Your task to perform on an android device: toggle airplane mode Image 0: 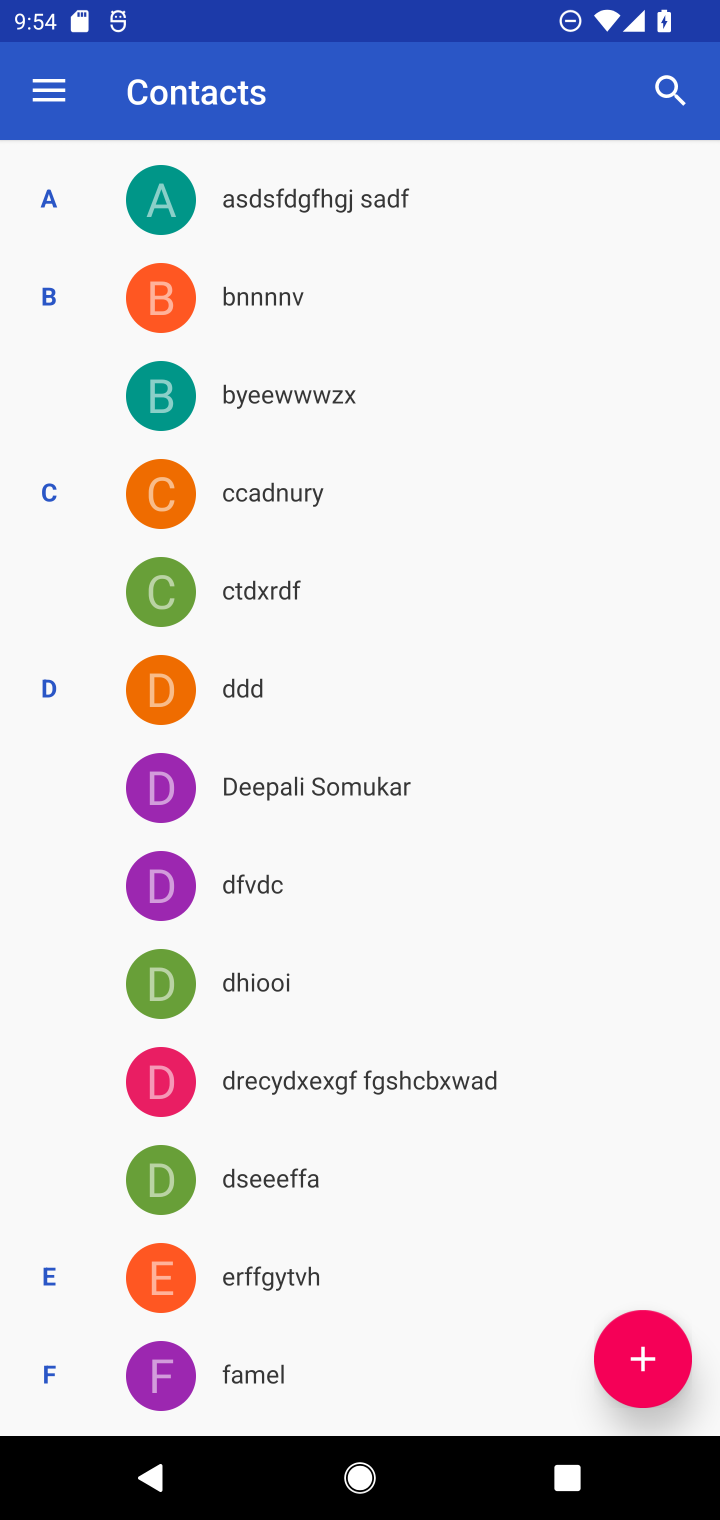
Step 0: press home button
Your task to perform on an android device: toggle airplane mode Image 1: 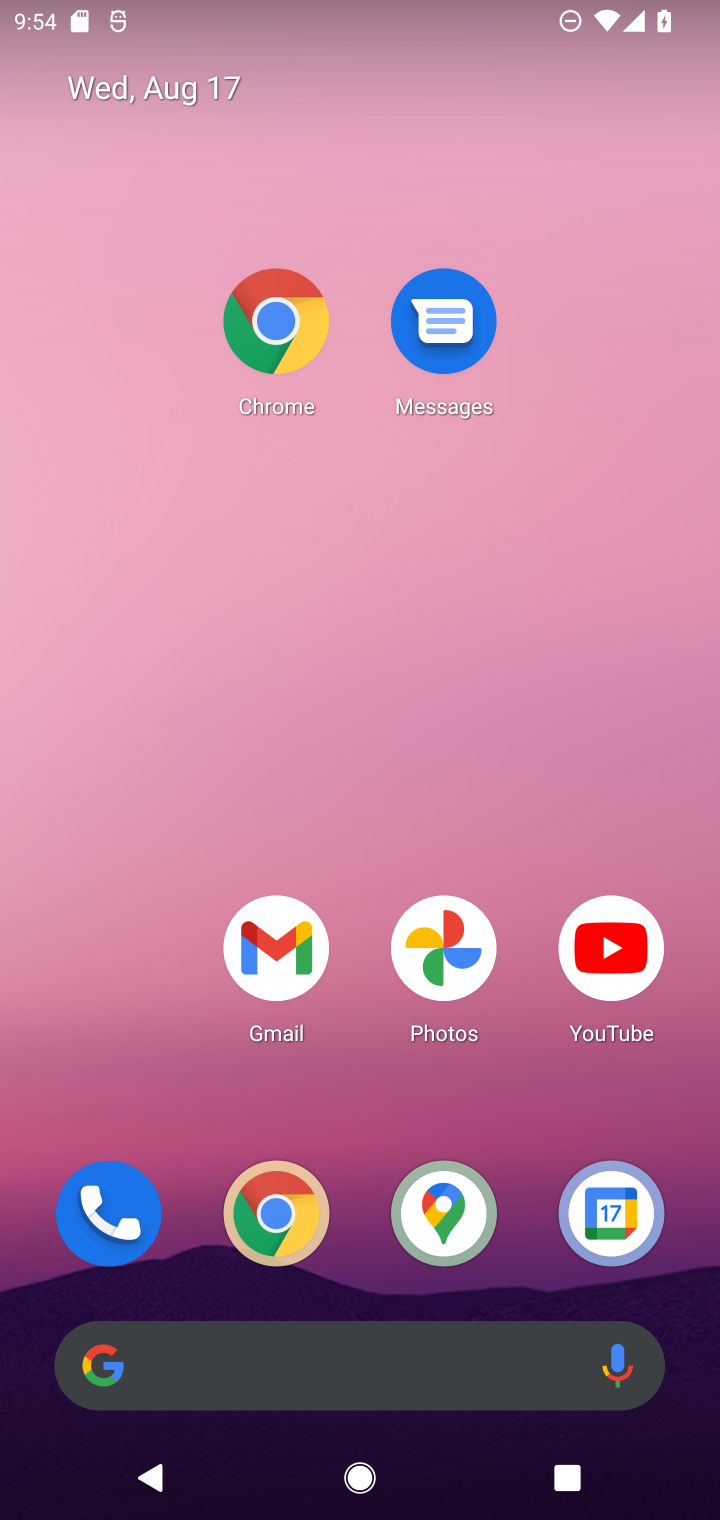
Step 1: drag from (354, 1308) to (405, 663)
Your task to perform on an android device: toggle airplane mode Image 2: 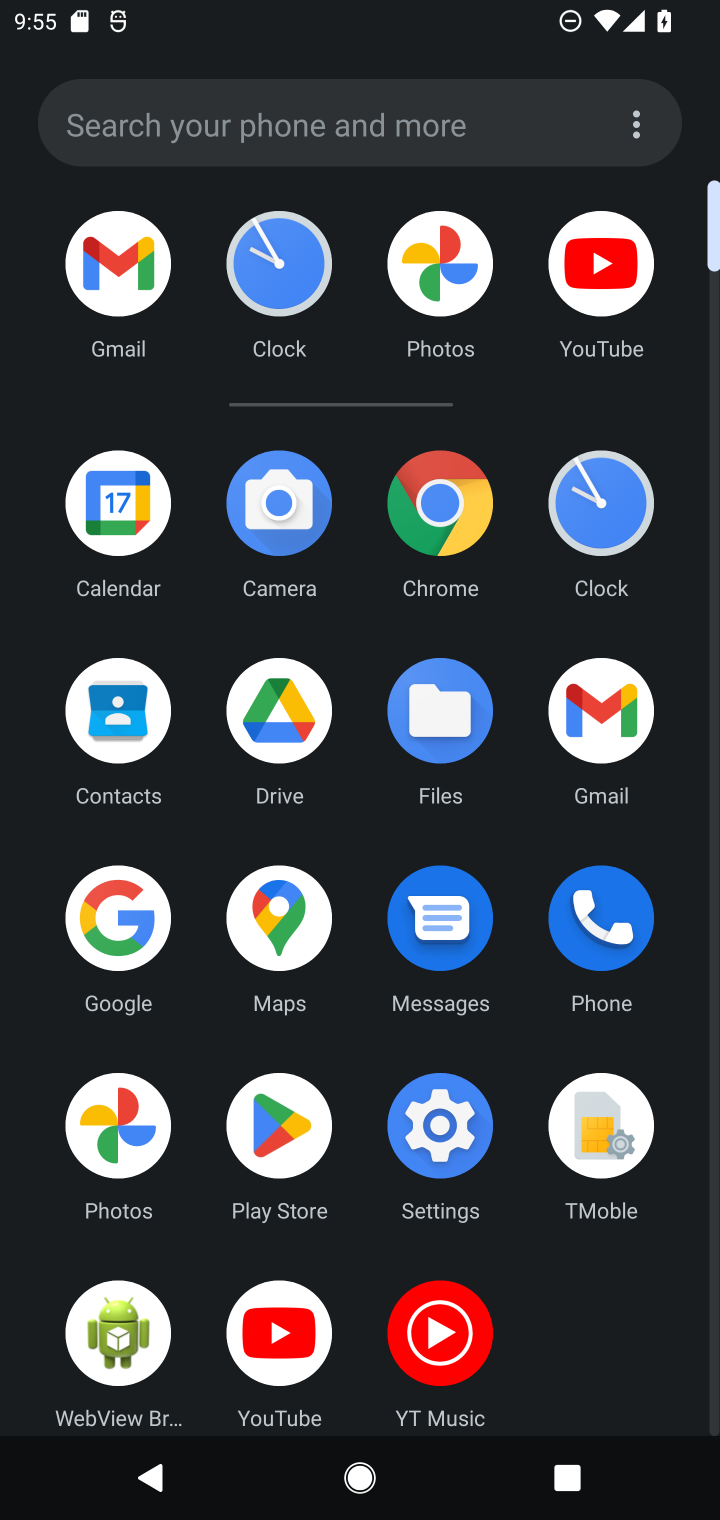
Step 2: click (453, 1129)
Your task to perform on an android device: toggle airplane mode Image 3: 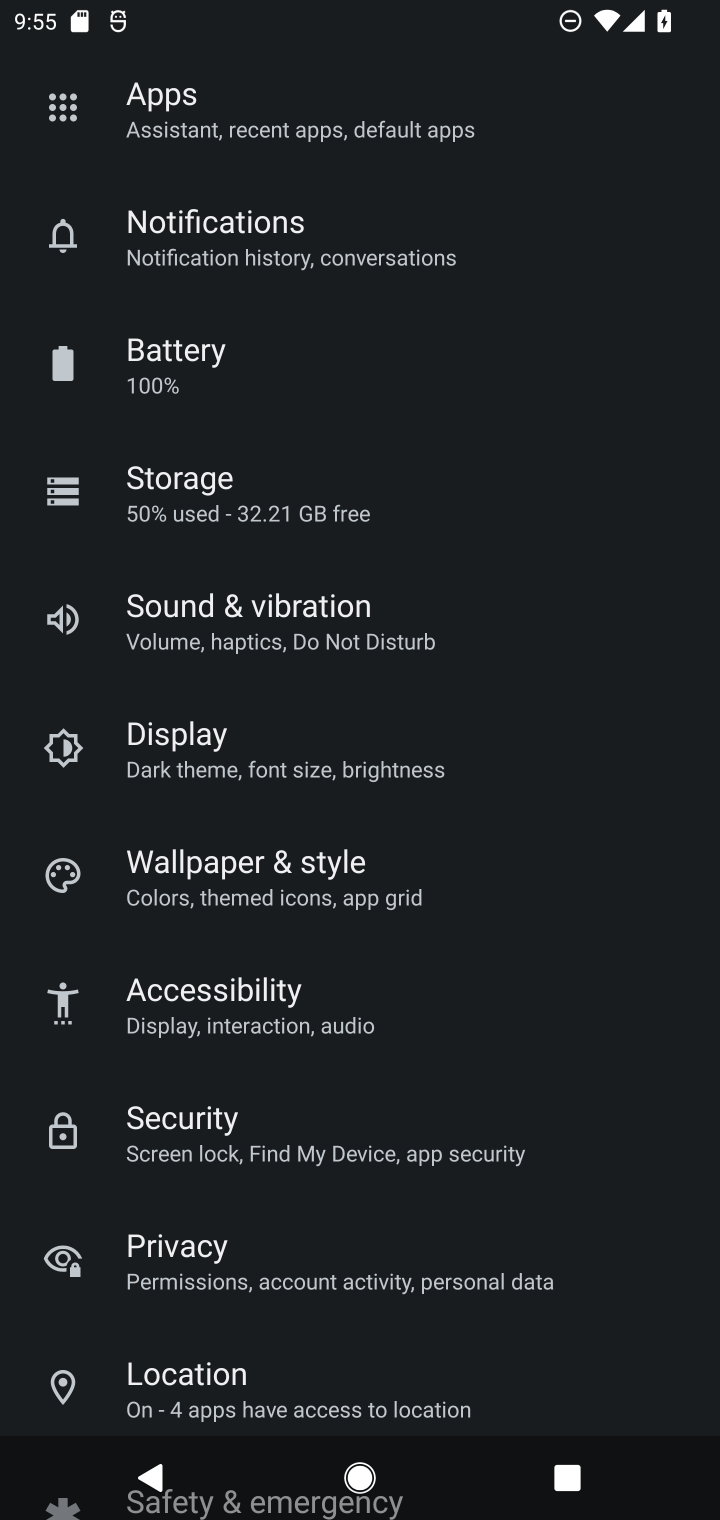
Step 3: drag from (434, 225) to (381, 1133)
Your task to perform on an android device: toggle airplane mode Image 4: 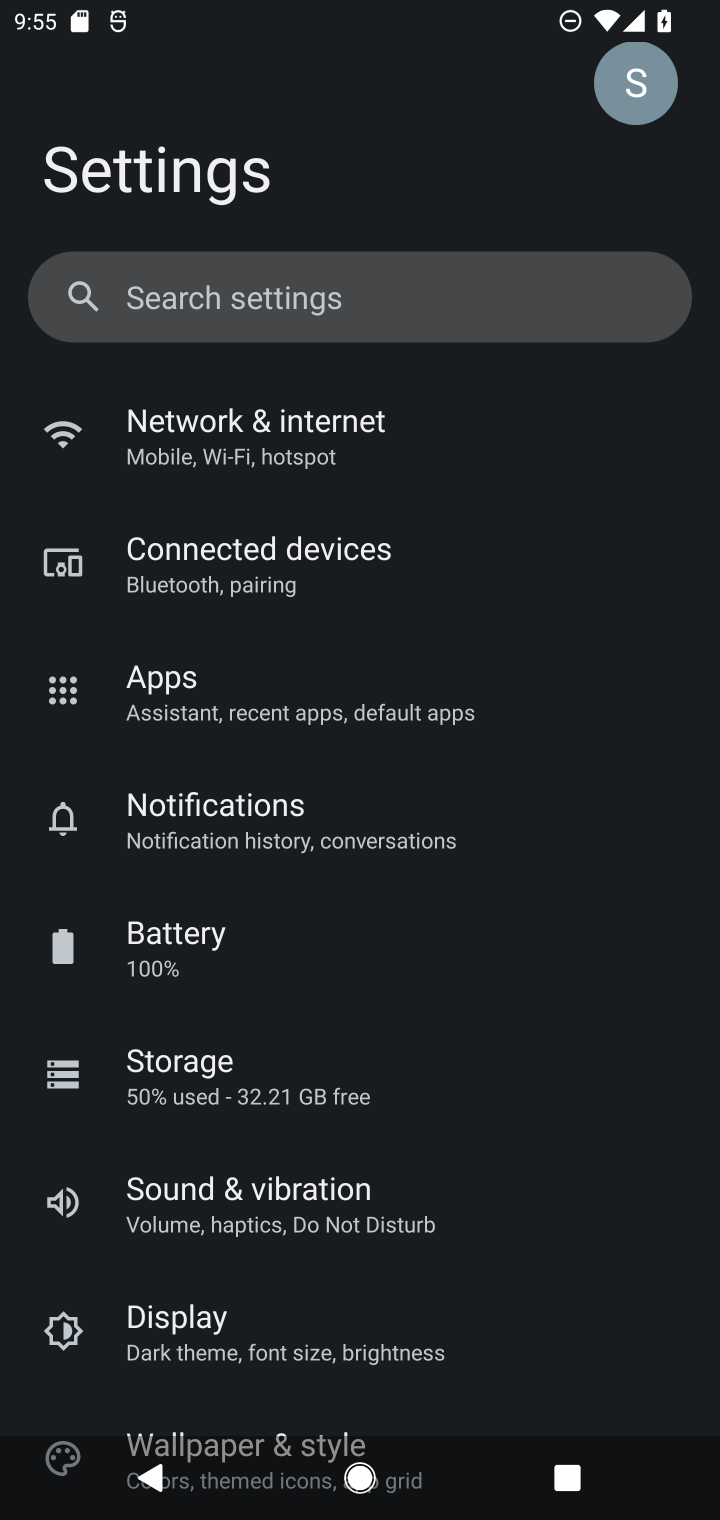
Step 4: click (169, 425)
Your task to perform on an android device: toggle airplane mode Image 5: 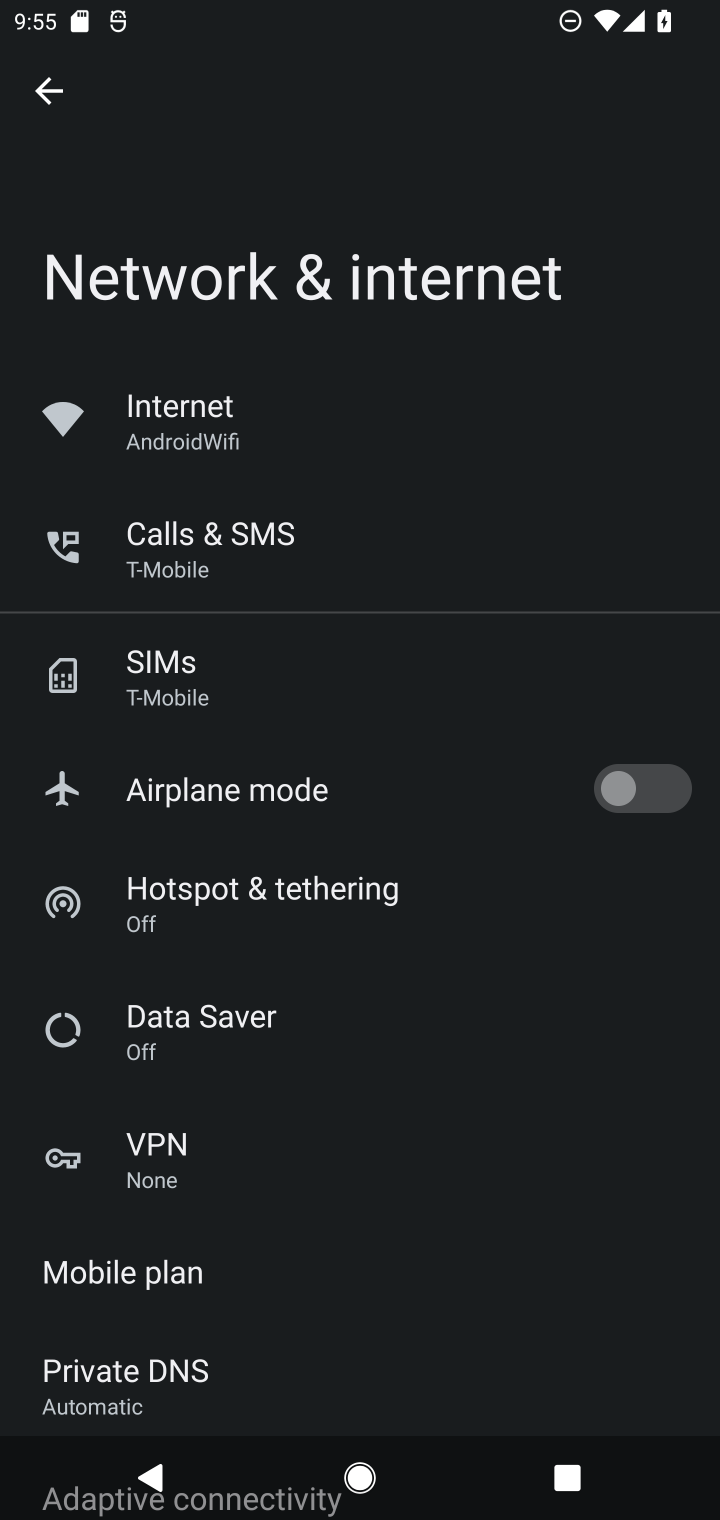
Step 5: click (593, 792)
Your task to perform on an android device: toggle airplane mode Image 6: 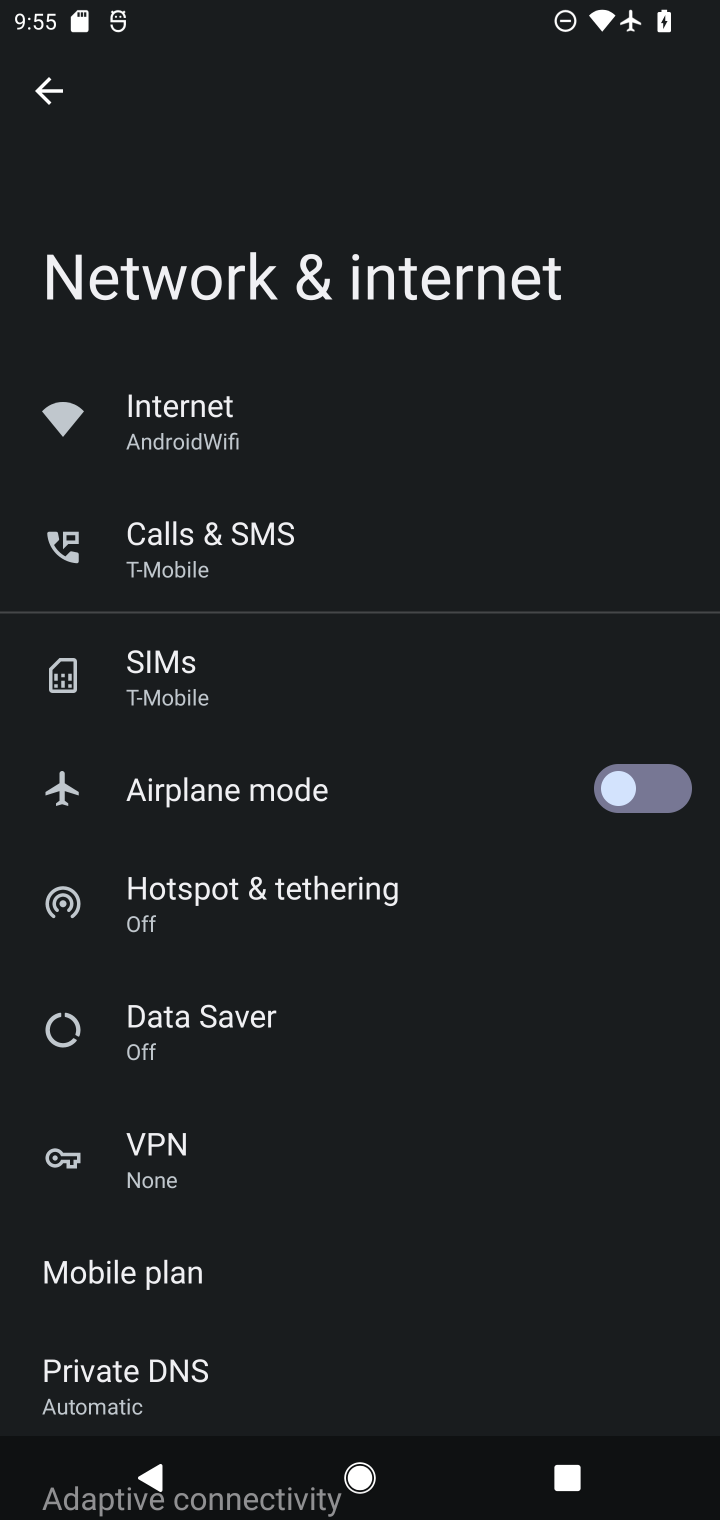
Step 6: task complete